Your task to perform on an android device: Open the stopwatch Image 0: 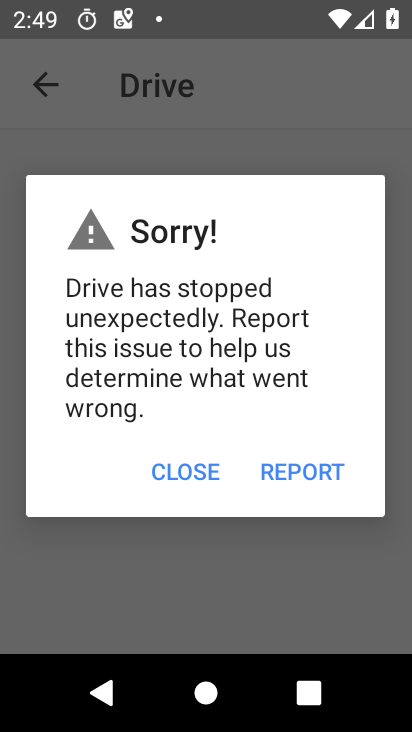
Step 0: press home button
Your task to perform on an android device: Open the stopwatch Image 1: 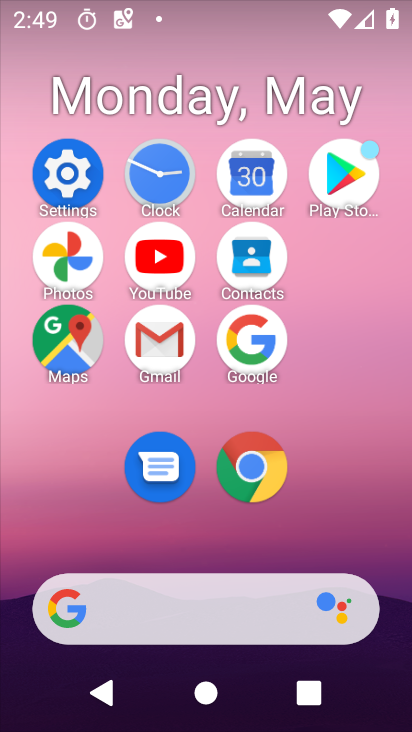
Step 1: click (126, 172)
Your task to perform on an android device: Open the stopwatch Image 2: 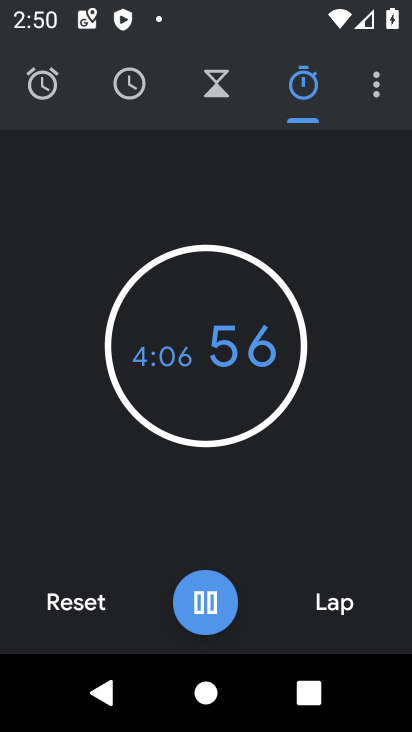
Step 2: click (109, 595)
Your task to perform on an android device: Open the stopwatch Image 3: 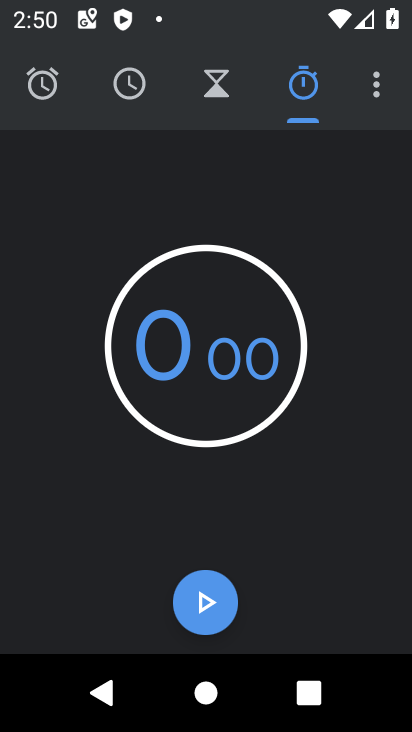
Step 3: click (224, 604)
Your task to perform on an android device: Open the stopwatch Image 4: 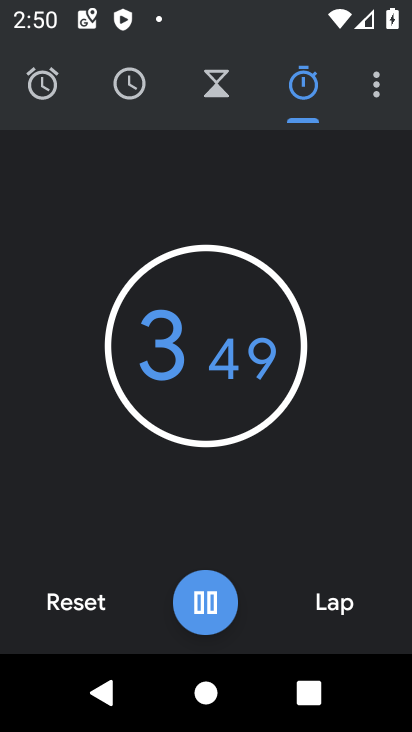
Step 4: task complete